Your task to perform on an android device: Open my contact list Image 0: 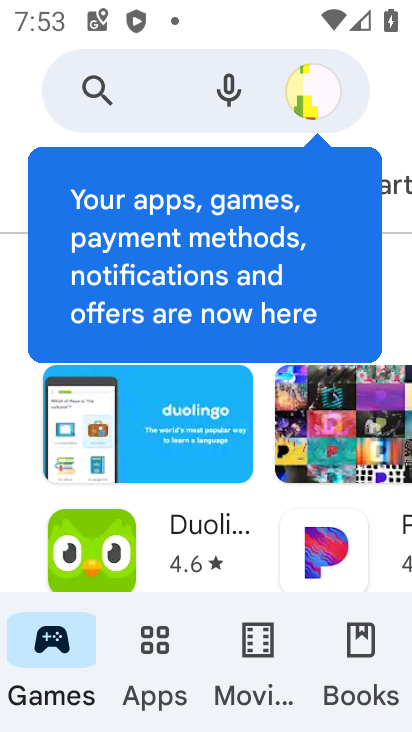
Step 0: press home button
Your task to perform on an android device: Open my contact list Image 1: 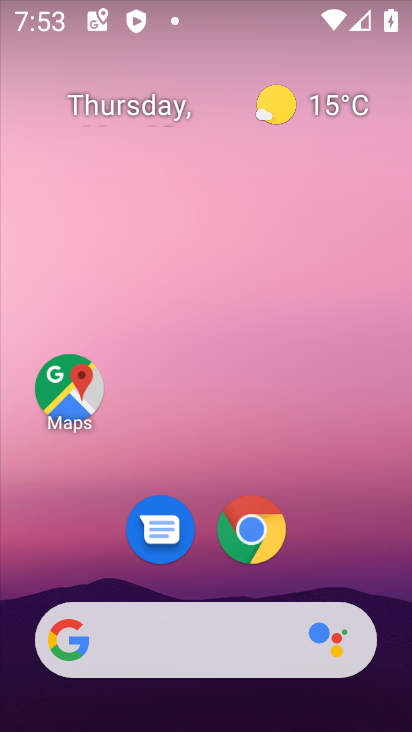
Step 1: drag from (249, 714) to (7, 89)
Your task to perform on an android device: Open my contact list Image 2: 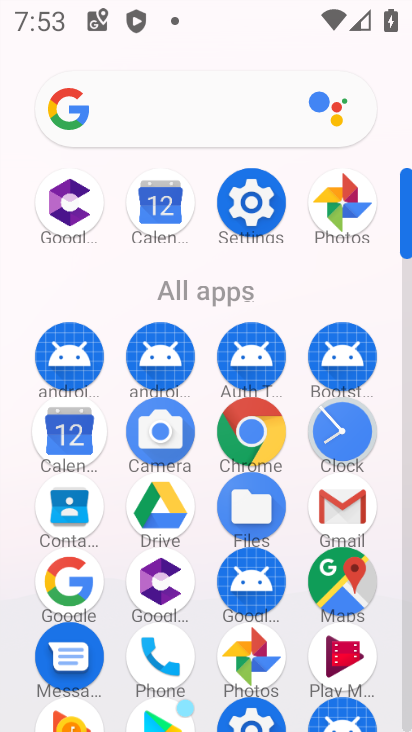
Step 2: click (76, 517)
Your task to perform on an android device: Open my contact list Image 3: 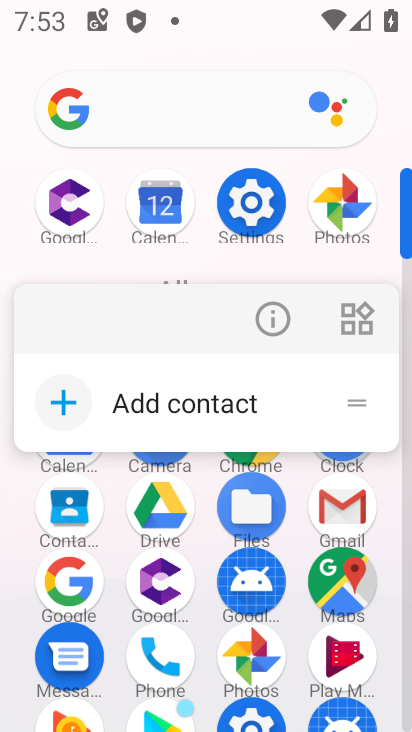
Step 3: click (76, 517)
Your task to perform on an android device: Open my contact list Image 4: 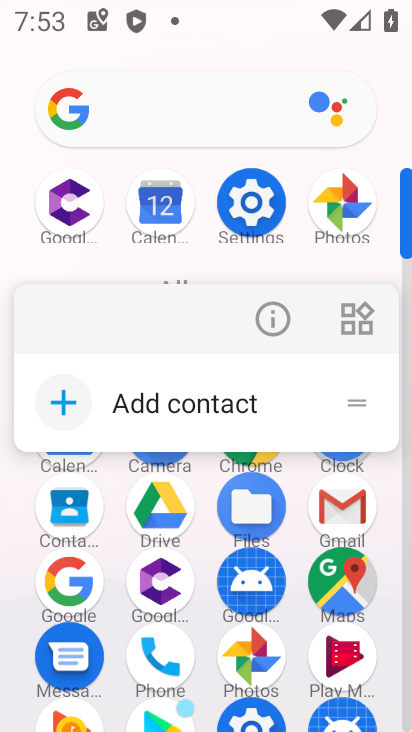
Step 4: click (76, 517)
Your task to perform on an android device: Open my contact list Image 5: 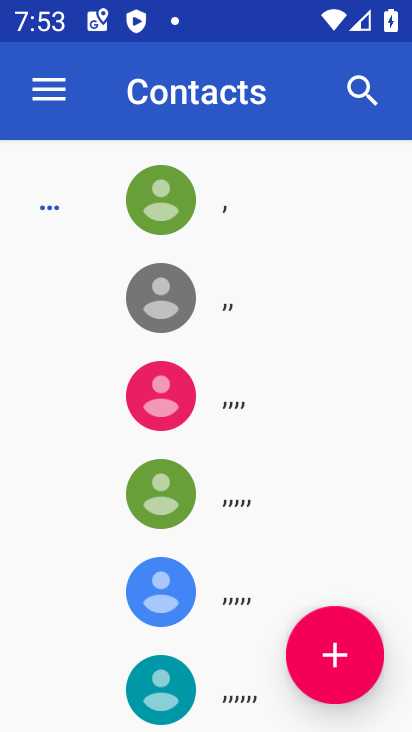
Step 5: task complete